Your task to perform on an android device: Add "logitech g pro" to the cart on target.com Image 0: 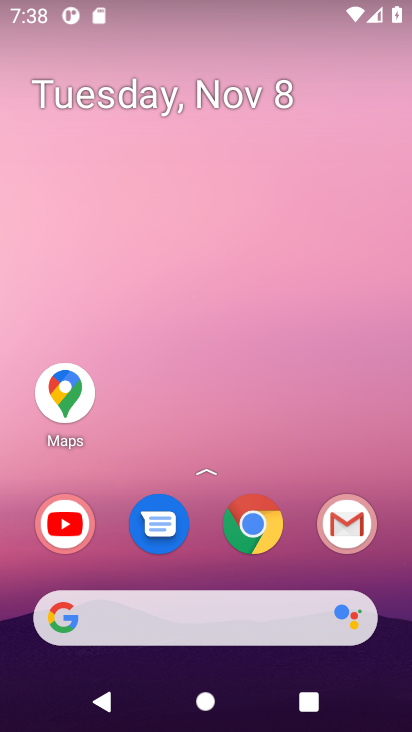
Step 0: click (258, 524)
Your task to perform on an android device: Add "logitech g pro" to the cart on target.com Image 1: 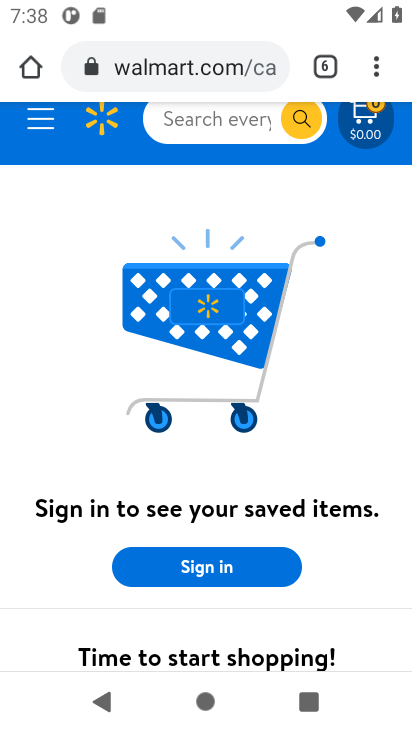
Step 1: click (204, 76)
Your task to perform on an android device: Add "logitech g pro" to the cart on target.com Image 2: 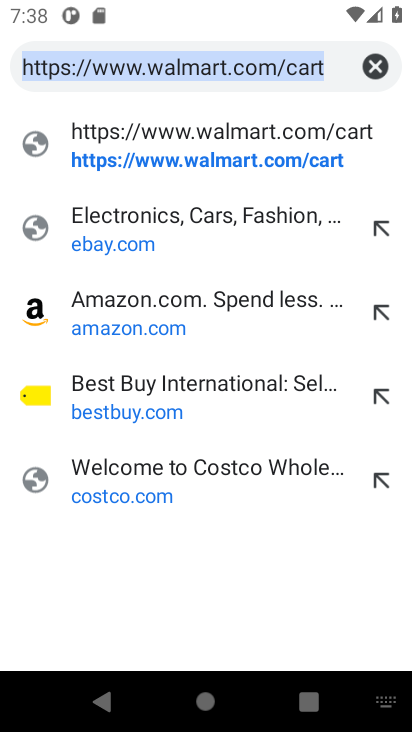
Step 2: type "target.com"
Your task to perform on an android device: Add "logitech g pro" to the cart on target.com Image 3: 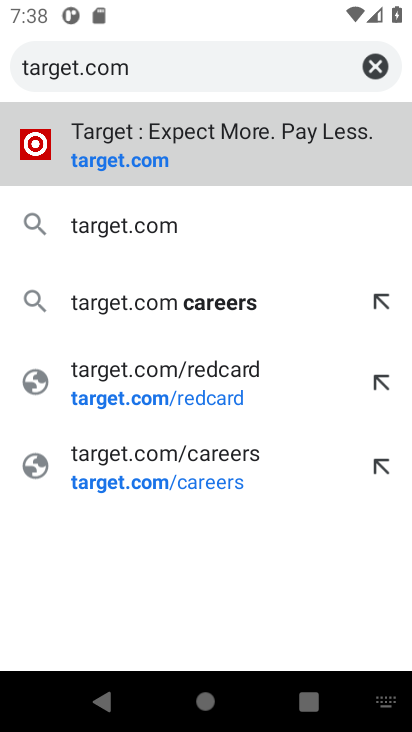
Step 3: click (129, 165)
Your task to perform on an android device: Add "logitech g pro" to the cart on target.com Image 4: 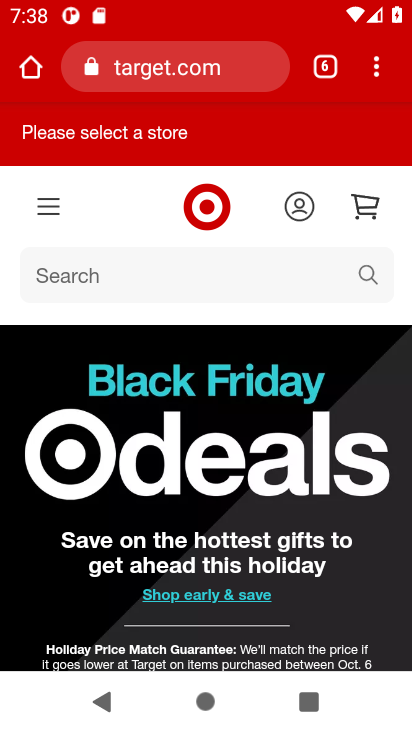
Step 4: click (361, 274)
Your task to perform on an android device: Add "logitech g pro" to the cart on target.com Image 5: 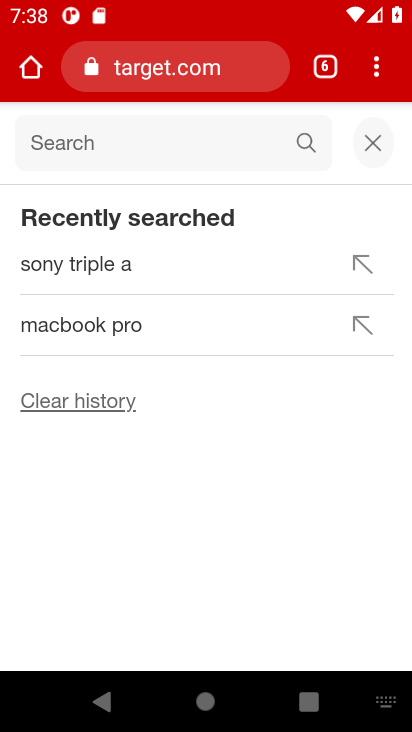
Step 5: type "logitech g pro"
Your task to perform on an android device: Add "logitech g pro" to the cart on target.com Image 6: 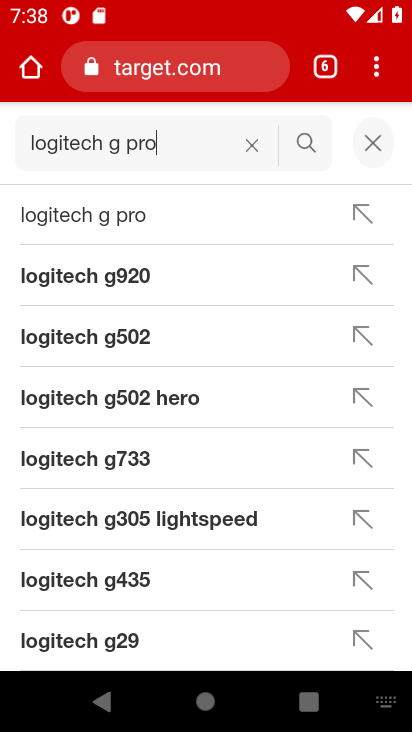
Step 6: click (103, 221)
Your task to perform on an android device: Add "logitech g pro" to the cart on target.com Image 7: 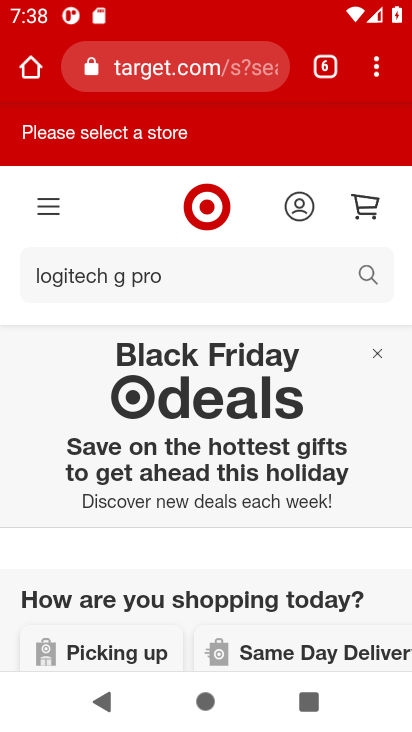
Step 7: task complete